Your task to perform on an android device: Go to network settings Image 0: 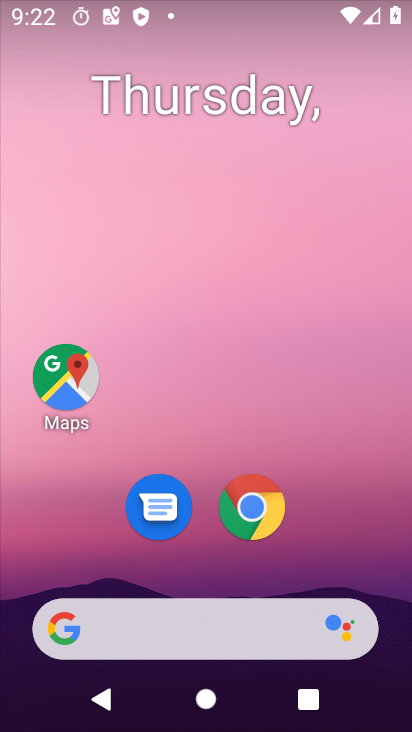
Step 0: drag from (225, 554) to (245, 14)
Your task to perform on an android device: Go to network settings Image 1: 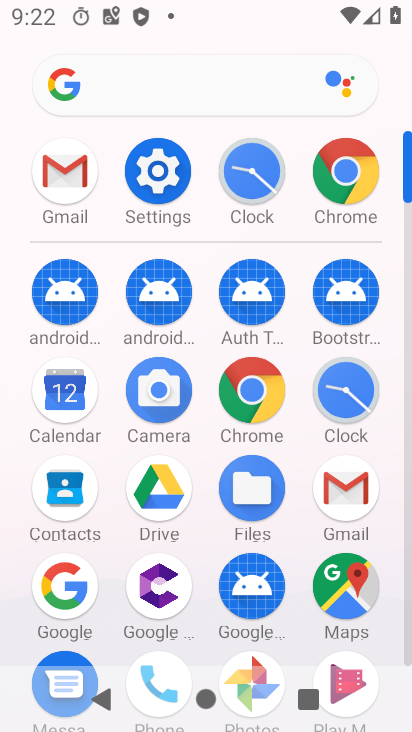
Step 1: click (148, 189)
Your task to perform on an android device: Go to network settings Image 2: 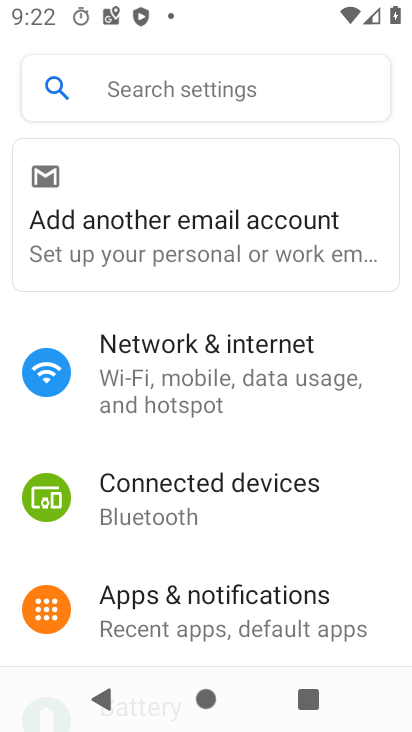
Step 2: click (228, 407)
Your task to perform on an android device: Go to network settings Image 3: 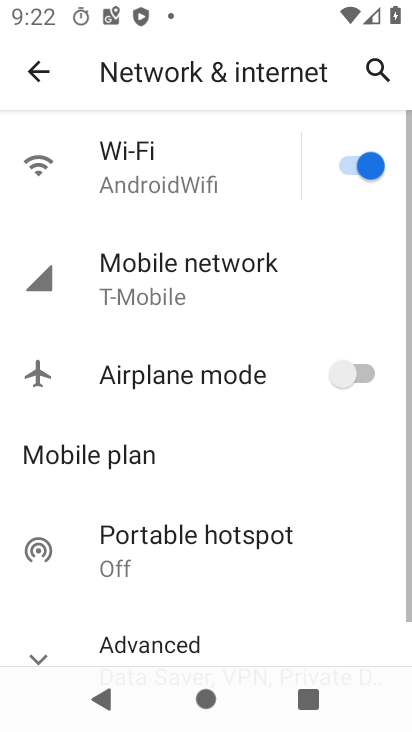
Step 3: task complete